Your task to perform on an android device: Open Maps and search for coffee Image 0: 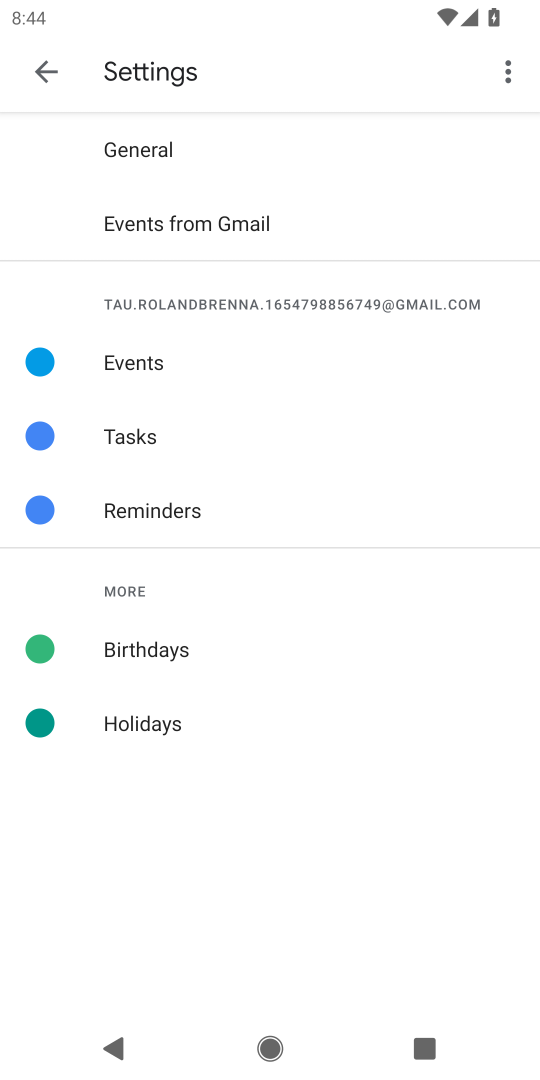
Step 0: press home button
Your task to perform on an android device: Open Maps and search for coffee Image 1: 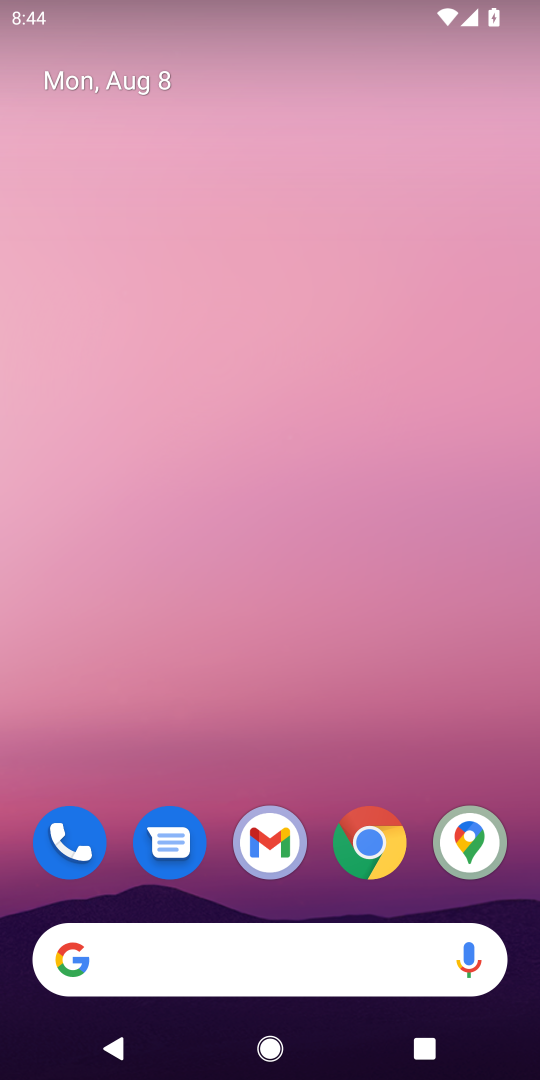
Step 1: click (489, 842)
Your task to perform on an android device: Open Maps and search for coffee Image 2: 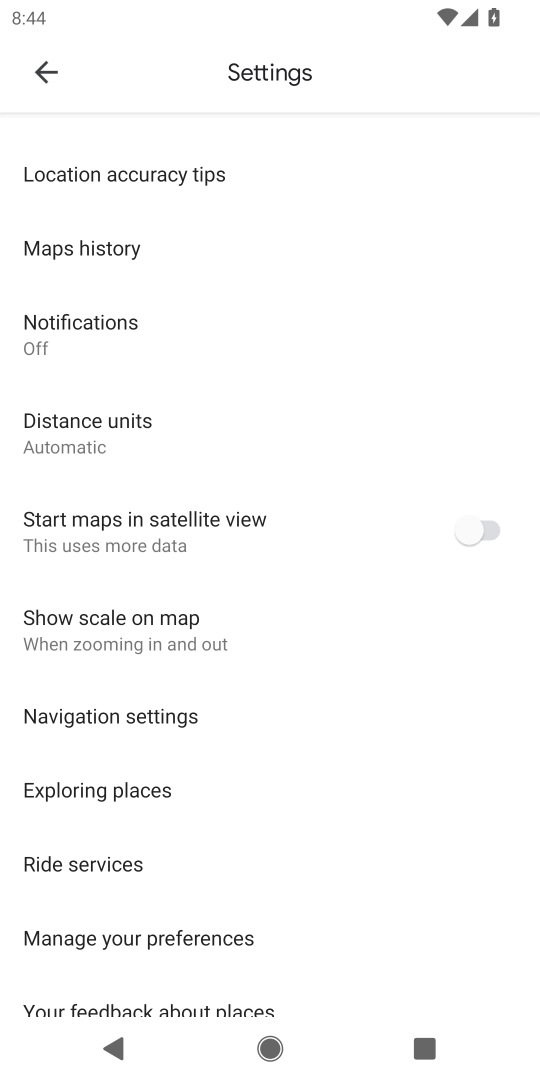
Step 2: click (38, 69)
Your task to perform on an android device: Open Maps and search for coffee Image 3: 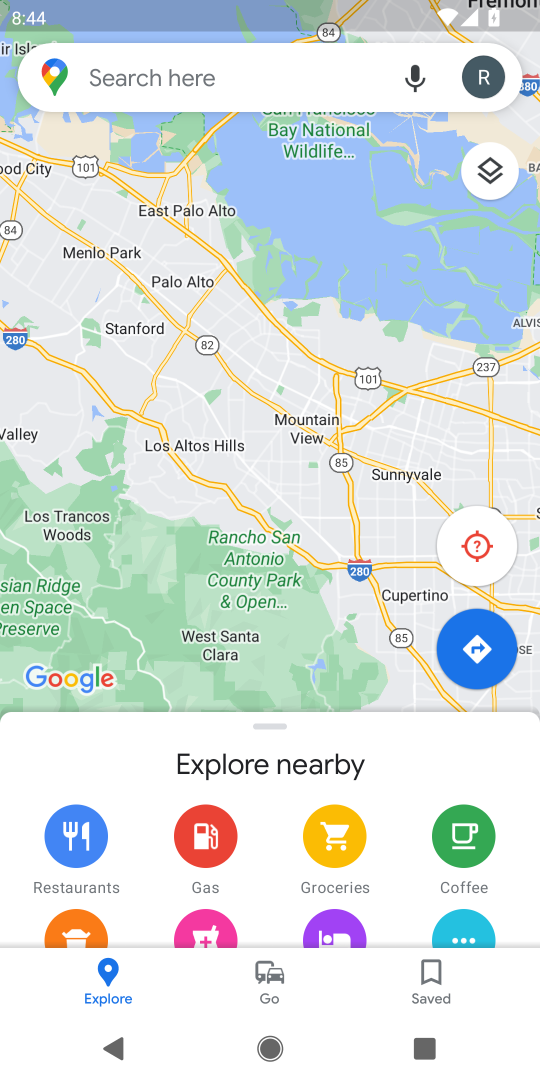
Step 3: click (244, 74)
Your task to perform on an android device: Open Maps and search for coffee Image 4: 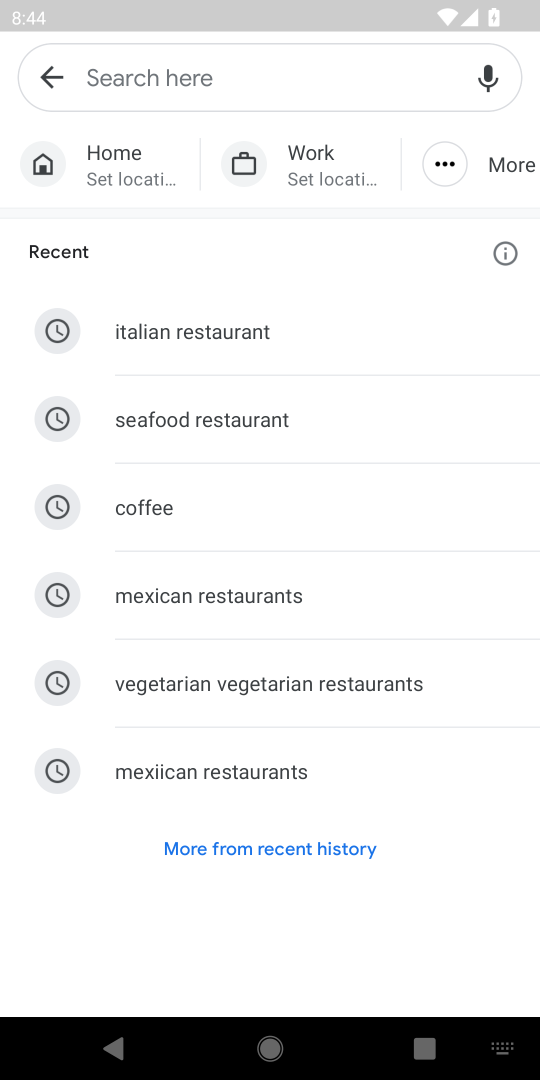
Step 4: type "coffee"
Your task to perform on an android device: Open Maps and search for coffee Image 5: 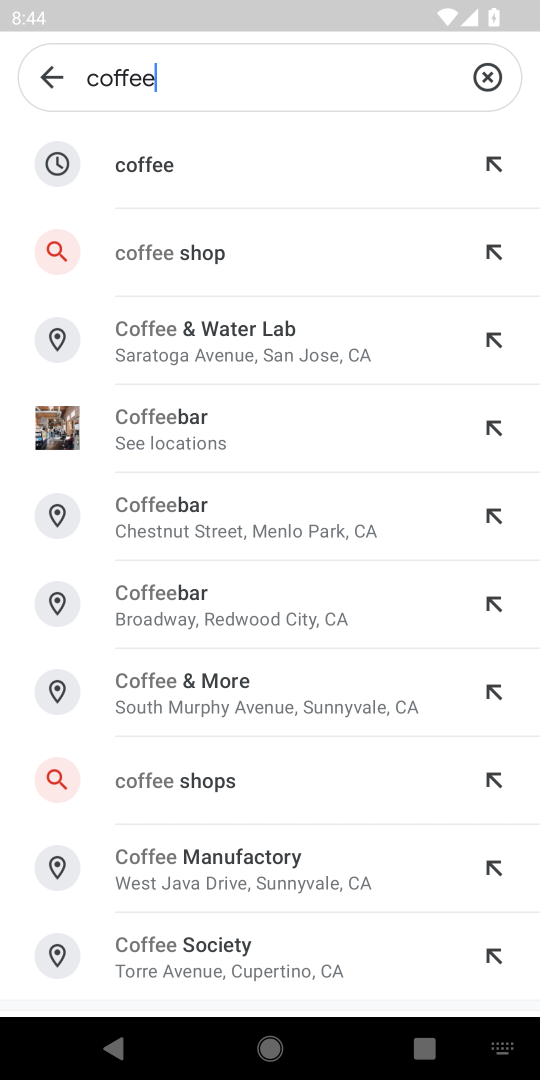
Step 5: click (157, 164)
Your task to perform on an android device: Open Maps and search for coffee Image 6: 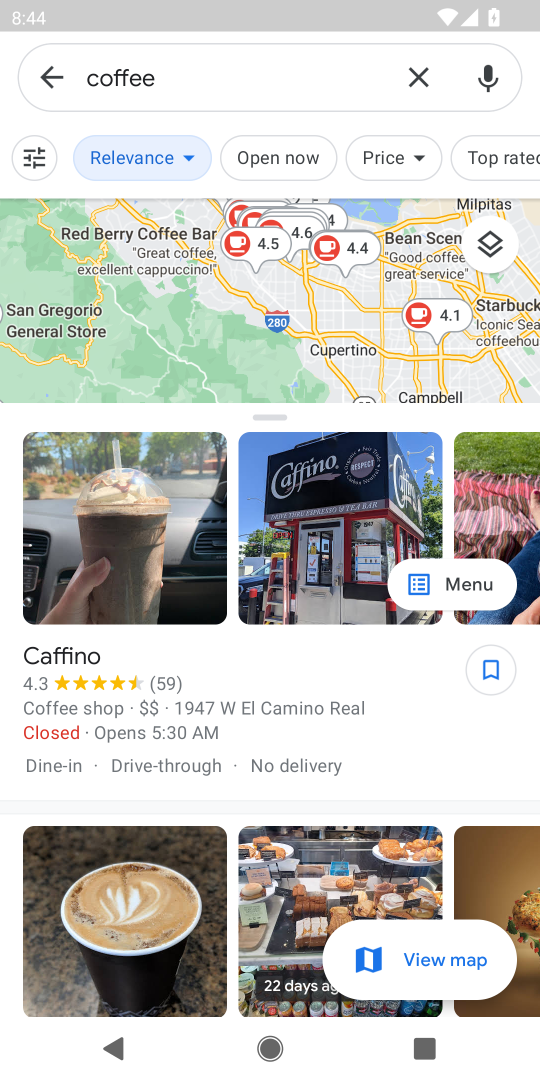
Step 6: task complete